Your task to perform on an android device: Search for pizza restaurants on Maps Image 0: 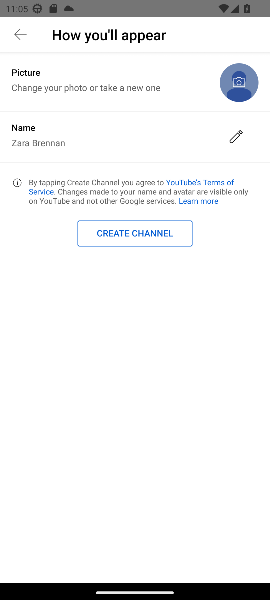
Step 0: press home button
Your task to perform on an android device: Search for pizza restaurants on Maps Image 1: 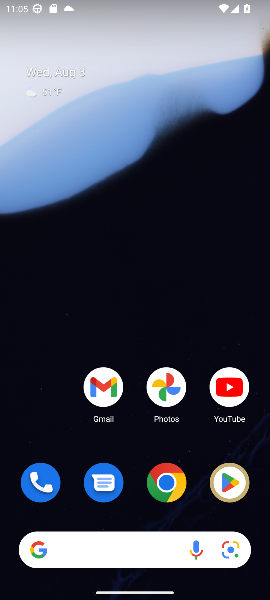
Step 1: drag from (138, 525) to (136, 259)
Your task to perform on an android device: Search for pizza restaurants on Maps Image 2: 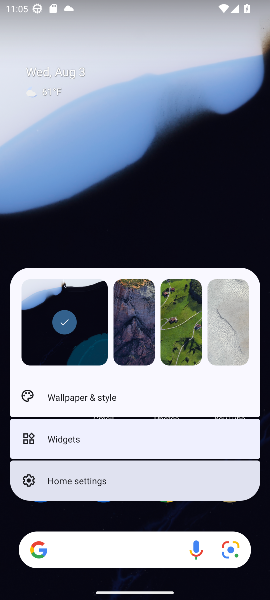
Step 2: click (198, 149)
Your task to perform on an android device: Search for pizza restaurants on Maps Image 3: 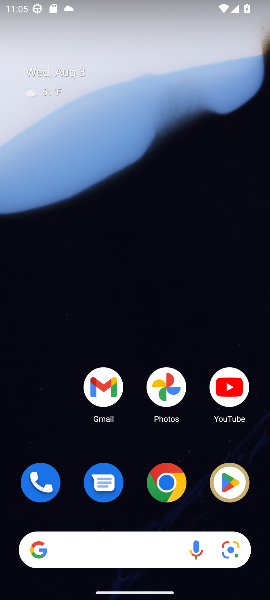
Step 3: drag from (97, 531) to (75, 62)
Your task to perform on an android device: Search for pizza restaurants on Maps Image 4: 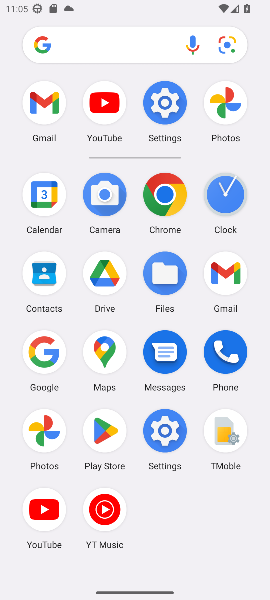
Step 4: click (119, 345)
Your task to perform on an android device: Search for pizza restaurants on Maps Image 5: 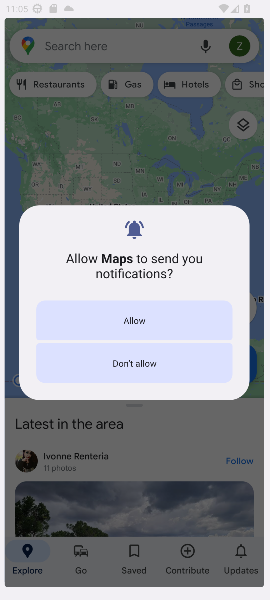
Step 5: task complete